Your task to perform on an android device: Go to sound settings Image 0: 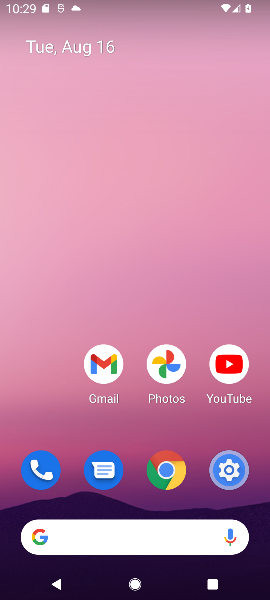
Step 0: click (239, 467)
Your task to perform on an android device: Go to sound settings Image 1: 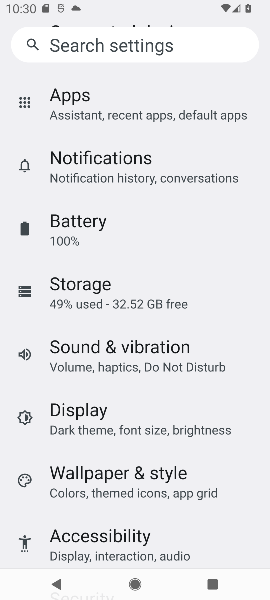
Step 1: click (131, 344)
Your task to perform on an android device: Go to sound settings Image 2: 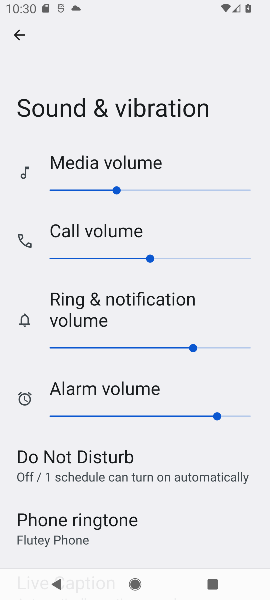
Step 2: task complete